Your task to perform on an android device: Install the Pandora app Image 0: 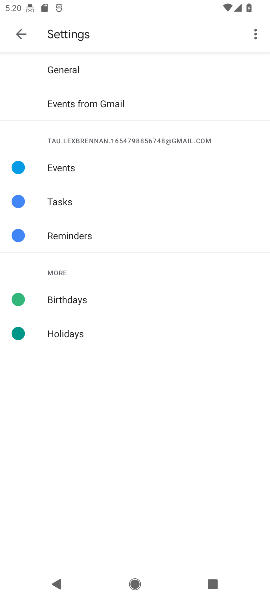
Step 0: press home button
Your task to perform on an android device: Install the Pandora app Image 1: 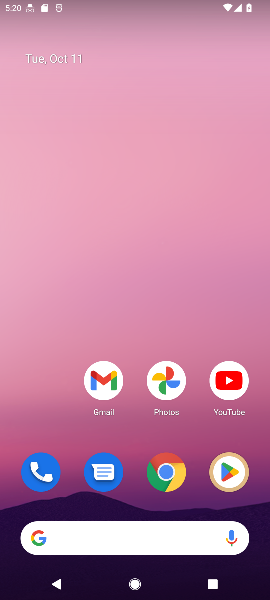
Step 1: click (232, 458)
Your task to perform on an android device: Install the Pandora app Image 2: 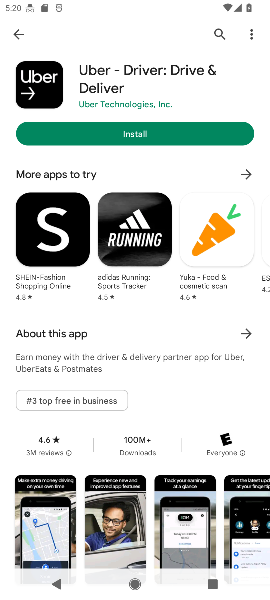
Step 2: click (223, 32)
Your task to perform on an android device: Install the Pandora app Image 3: 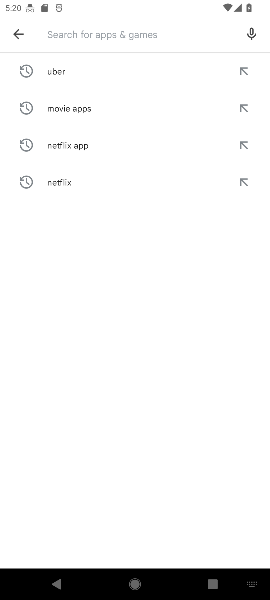
Step 3: type "Pandora app"
Your task to perform on an android device: Install the Pandora app Image 4: 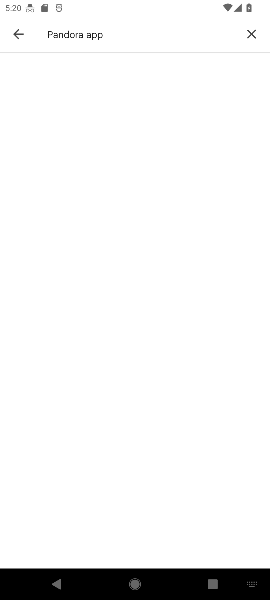
Step 4: click (254, 31)
Your task to perform on an android device: Install the Pandora app Image 5: 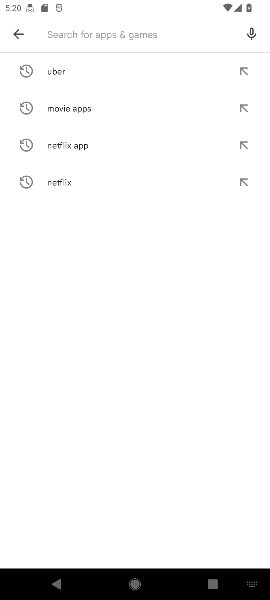
Step 5: type "pandora"
Your task to perform on an android device: Install the Pandora app Image 6: 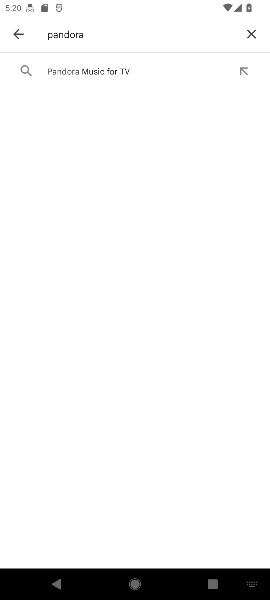
Step 6: click (65, 68)
Your task to perform on an android device: Install the Pandora app Image 7: 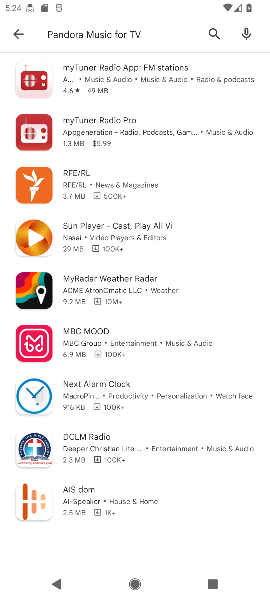
Step 7: task complete